Your task to perform on an android device: Check the weather Image 0: 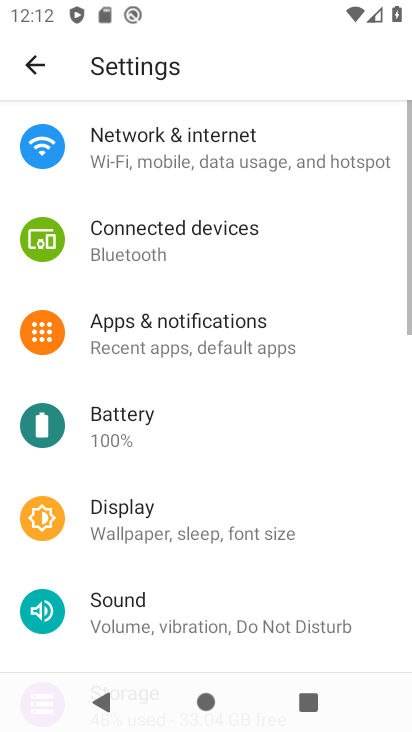
Step 0: press home button
Your task to perform on an android device: Check the weather Image 1: 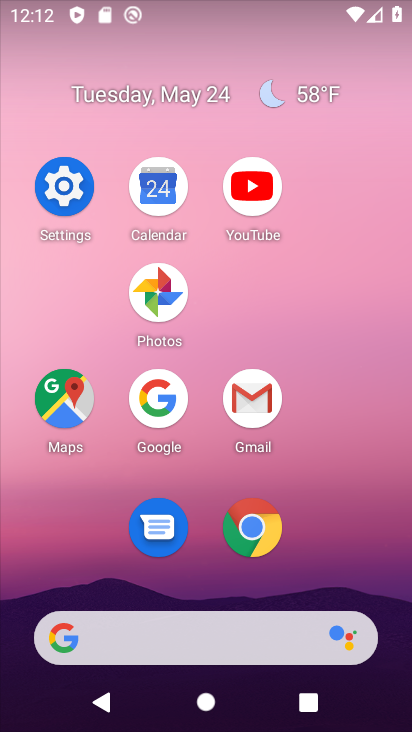
Step 1: click (148, 399)
Your task to perform on an android device: Check the weather Image 2: 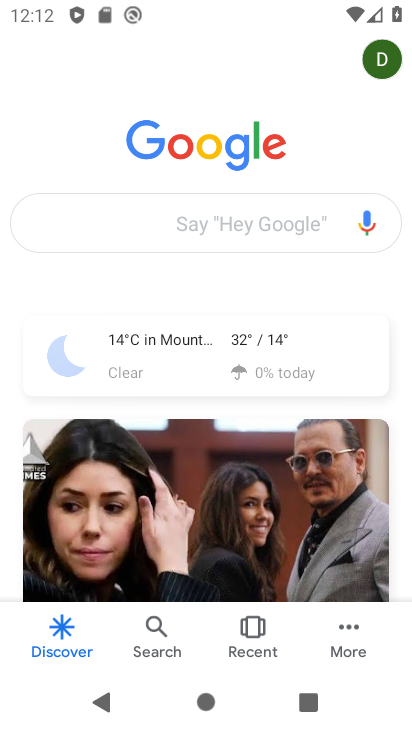
Step 2: click (165, 339)
Your task to perform on an android device: Check the weather Image 3: 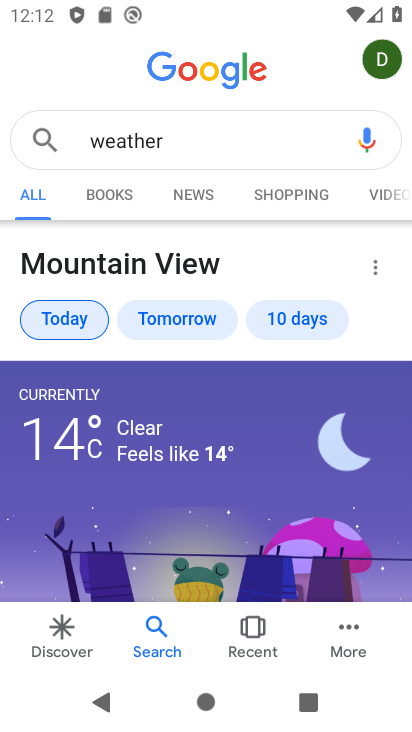
Step 3: task complete